Your task to perform on an android device: Find coffee shops on Maps Image 0: 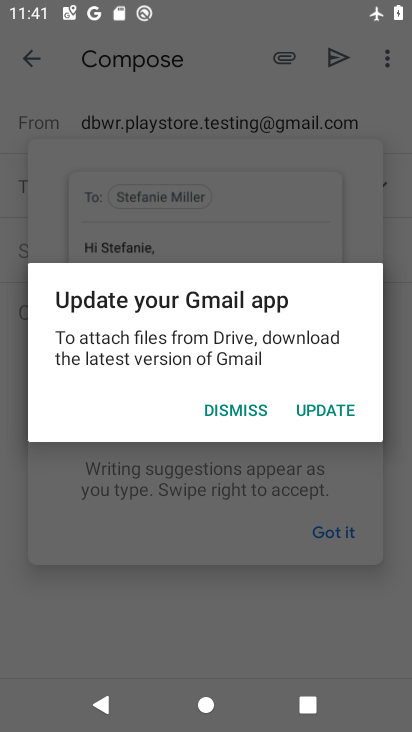
Step 0: press home button
Your task to perform on an android device: Find coffee shops on Maps Image 1: 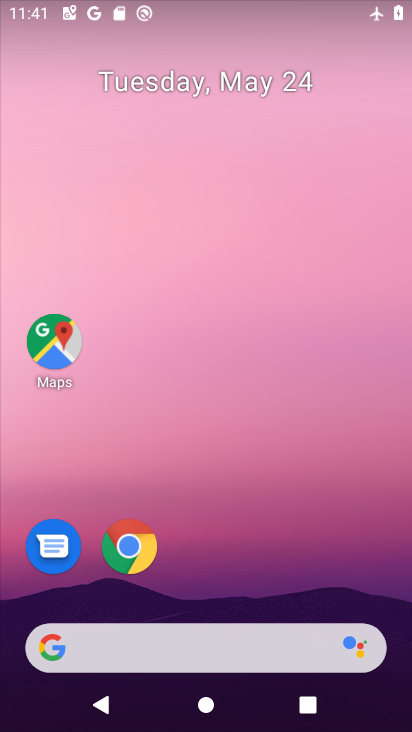
Step 1: drag from (217, 597) to (287, 9)
Your task to perform on an android device: Find coffee shops on Maps Image 2: 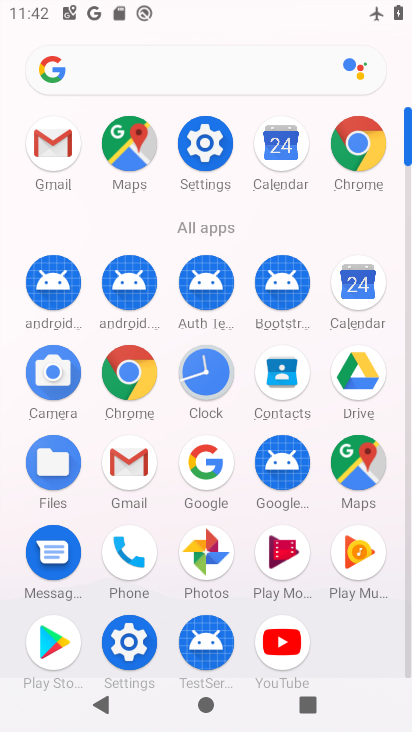
Step 2: click (356, 453)
Your task to perform on an android device: Find coffee shops on Maps Image 3: 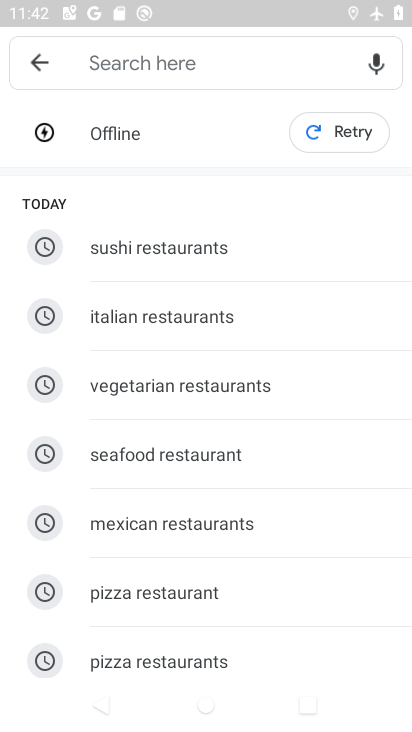
Step 3: drag from (332, 4) to (223, 616)
Your task to perform on an android device: Find coffee shops on Maps Image 4: 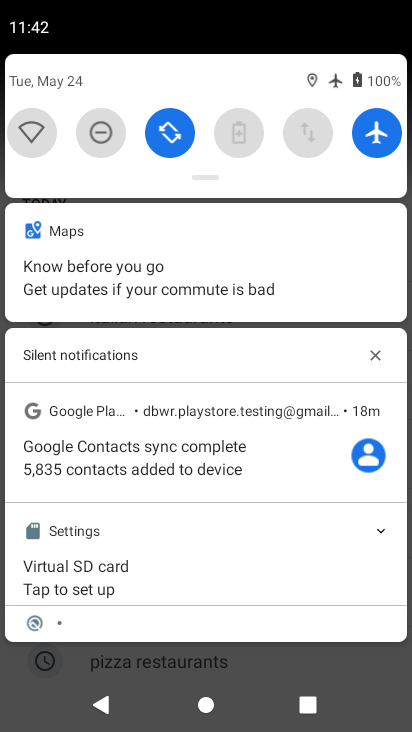
Step 4: click (386, 130)
Your task to perform on an android device: Find coffee shops on Maps Image 5: 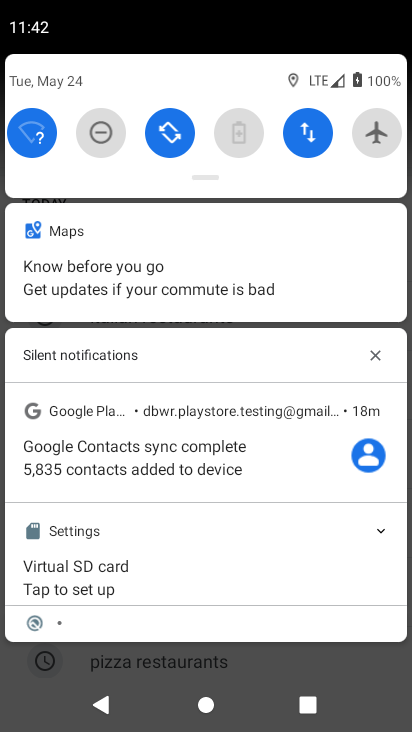
Step 5: drag from (266, 658) to (329, 169)
Your task to perform on an android device: Find coffee shops on Maps Image 6: 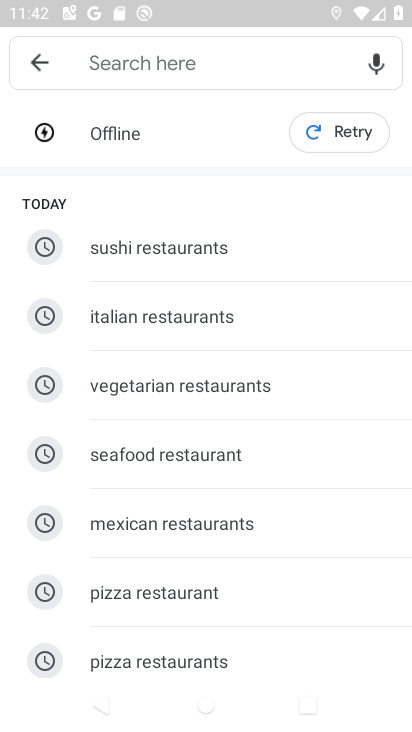
Step 6: click (211, 69)
Your task to perform on an android device: Find coffee shops on Maps Image 7: 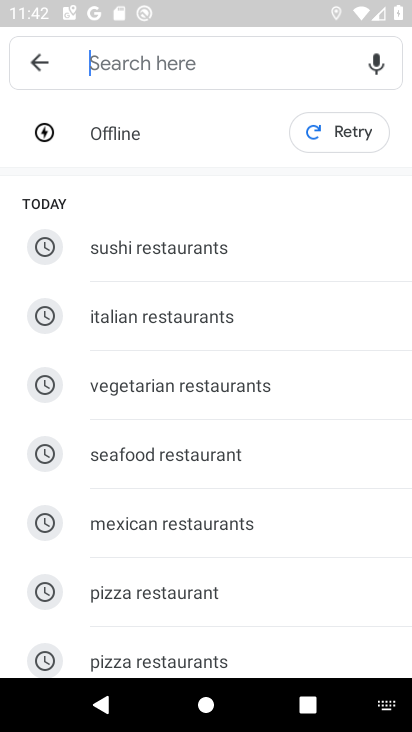
Step 7: type "coffee shops"
Your task to perform on an android device: Find coffee shops on Maps Image 8: 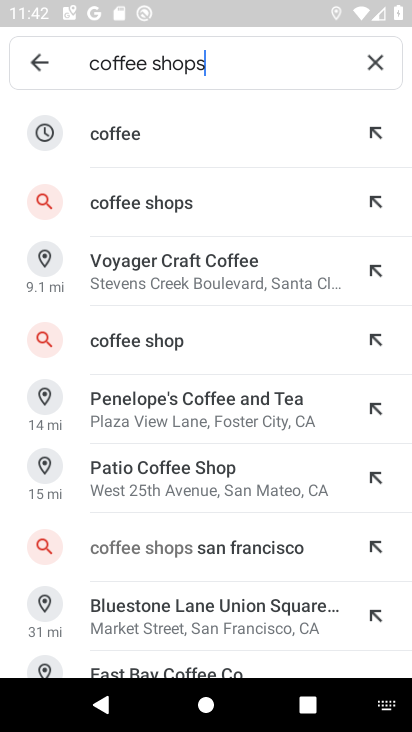
Step 8: click (201, 198)
Your task to perform on an android device: Find coffee shops on Maps Image 9: 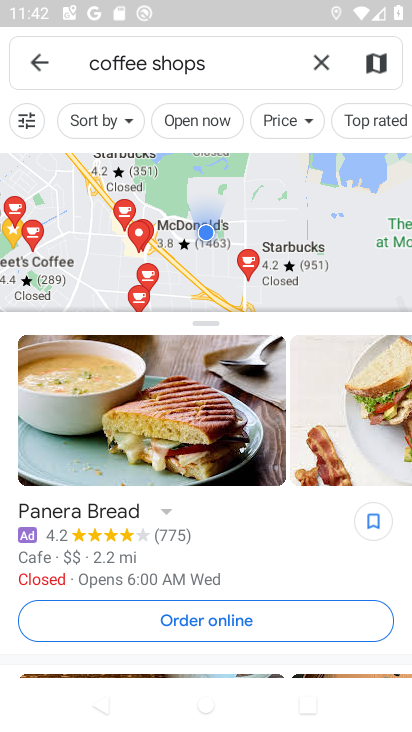
Step 9: task complete